Your task to perform on an android device: Open Maps and search for coffee Image 0: 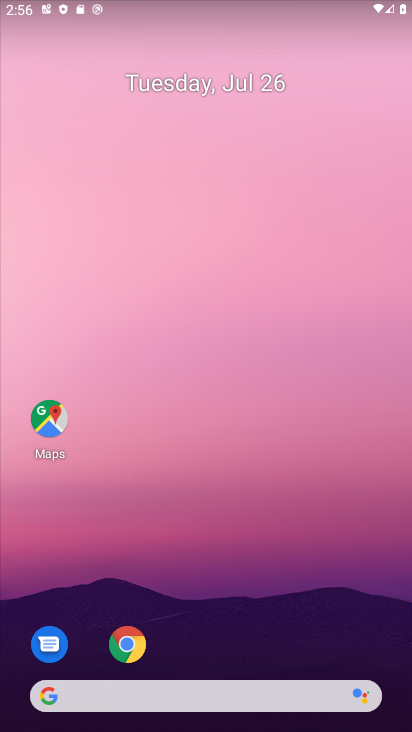
Step 0: press home button
Your task to perform on an android device: Open Maps and search for coffee Image 1: 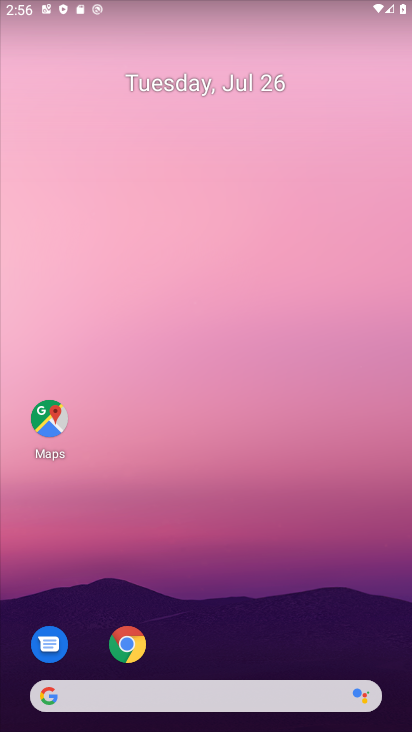
Step 1: click (49, 418)
Your task to perform on an android device: Open Maps and search for coffee Image 2: 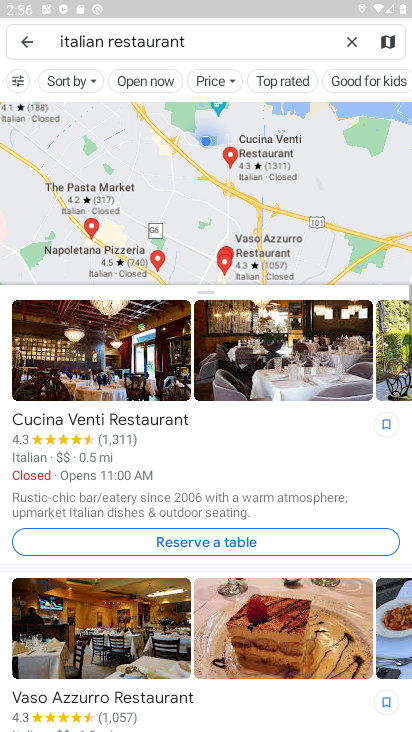
Step 2: click (359, 43)
Your task to perform on an android device: Open Maps and search for coffee Image 3: 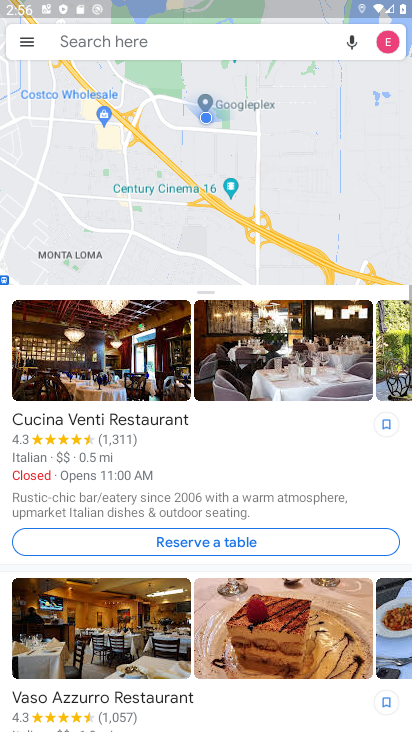
Step 3: click (356, 39)
Your task to perform on an android device: Open Maps and search for coffee Image 4: 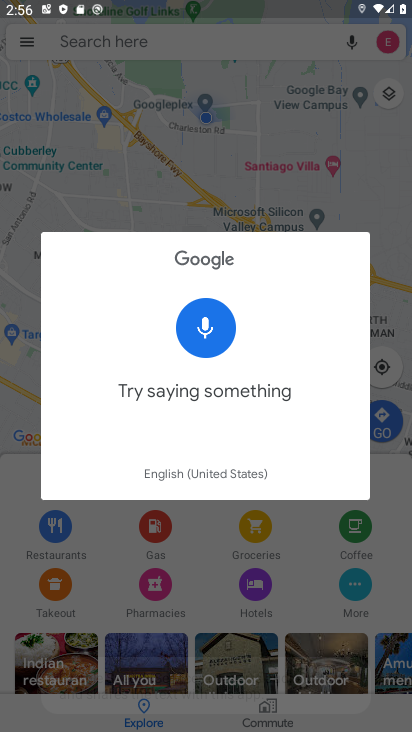
Step 4: type "coffee"
Your task to perform on an android device: Open Maps and search for coffee Image 5: 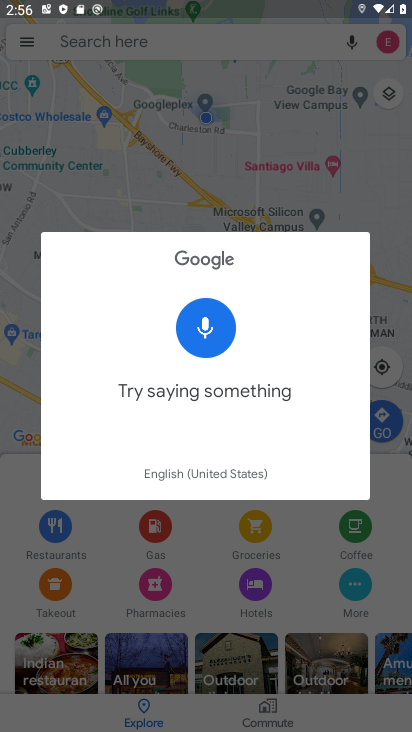
Step 5: click (103, 53)
Your task to perform on an android device: Open Maps and search for coffee Image 6: 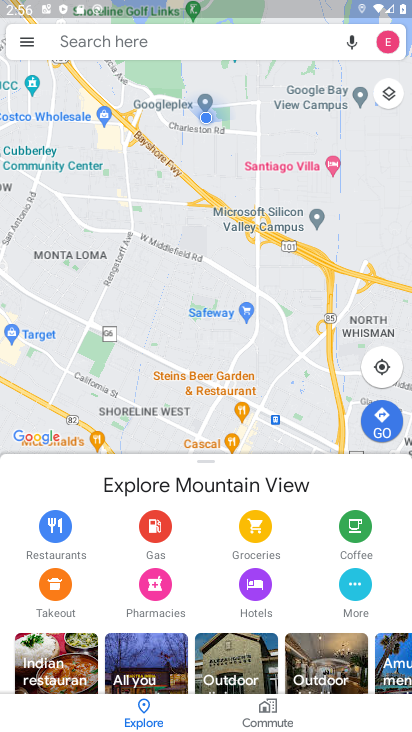
Step 6: click (109, 44)
Your task to perform on an android device: Open Maps and search for coffee Image 7: 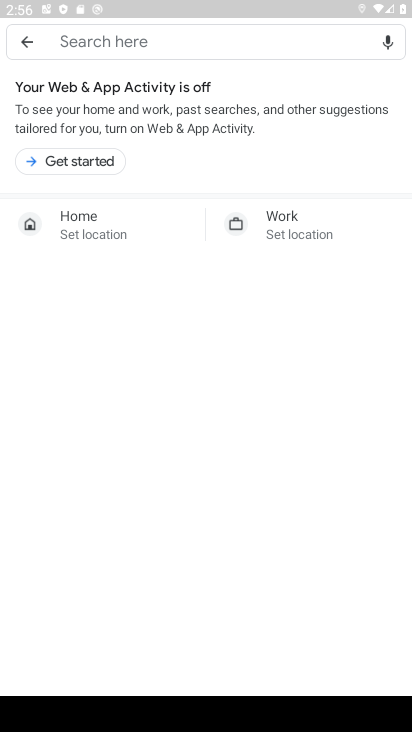
Step 7: click (111, 39)
Your task to perform on an android device: Open Maps and search for coffee Image 8: 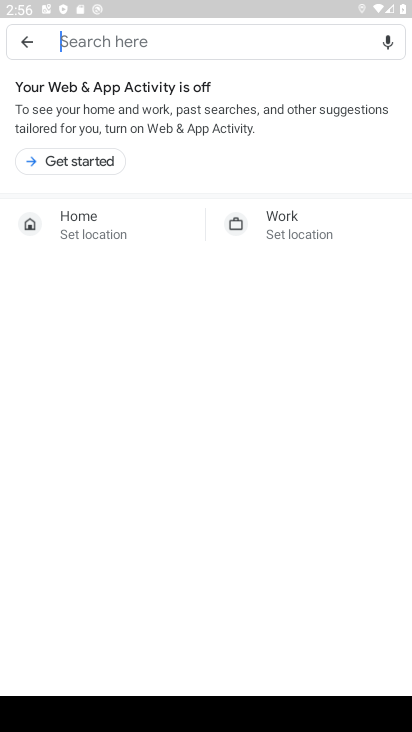
Step 8: type "coffee"
Your task to perform on an android device: Open Maps and search for coffee Image 9: 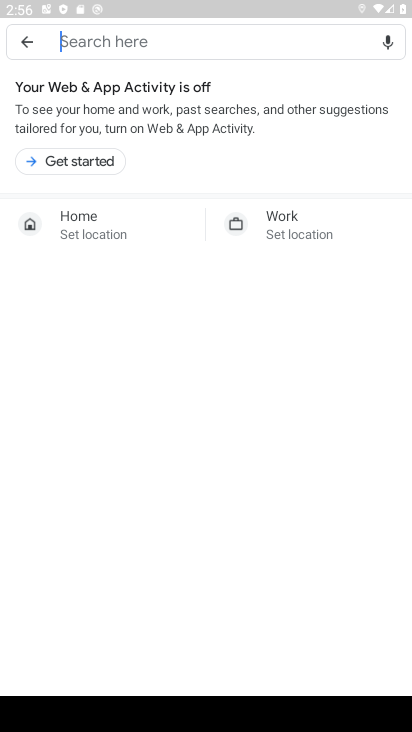
Step 9: click (82, 34)
Your task to perform on an android device: Open Maps and search for coffee Image 10: 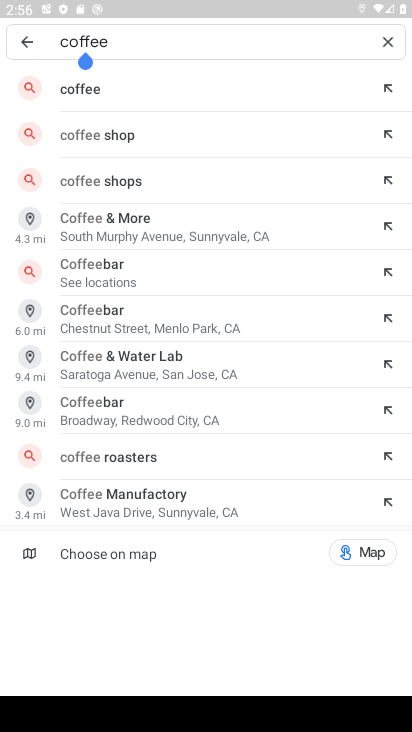
Step 10: click (82, 89)
Your task to perform on an android device: Open Maps and search for coffee Image 11: 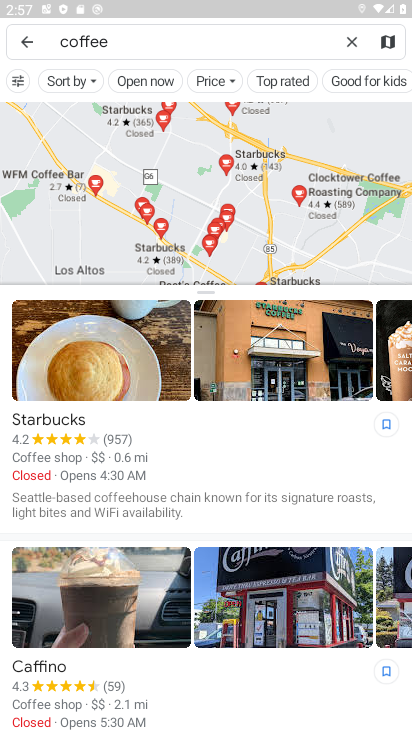
Step 11: task complete